Your task to perform on an android device: turn on location history Image 0: 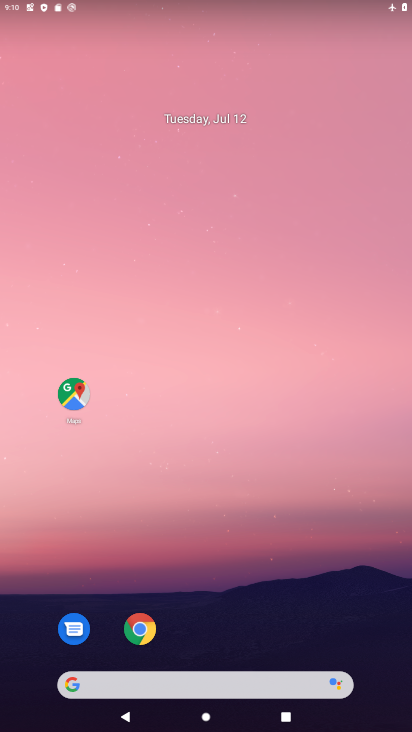
Step 0: drag from (227, 591) to (211, 173)
Your task to perform on an android device: turn on location history Image 1: 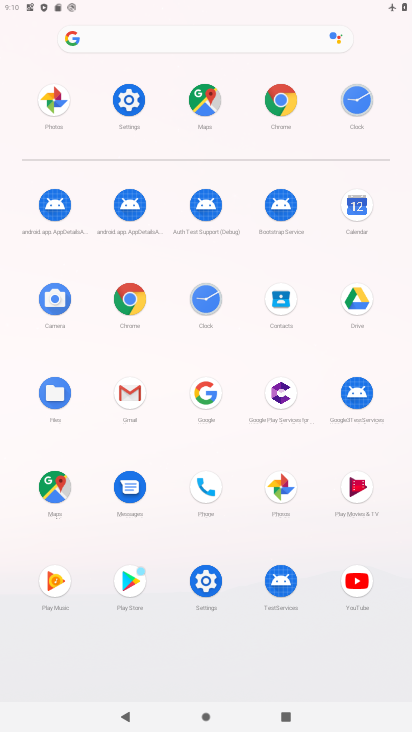
Step 1: click (135, 93)
Your task to perform on an android device: turn on location history Image 2: 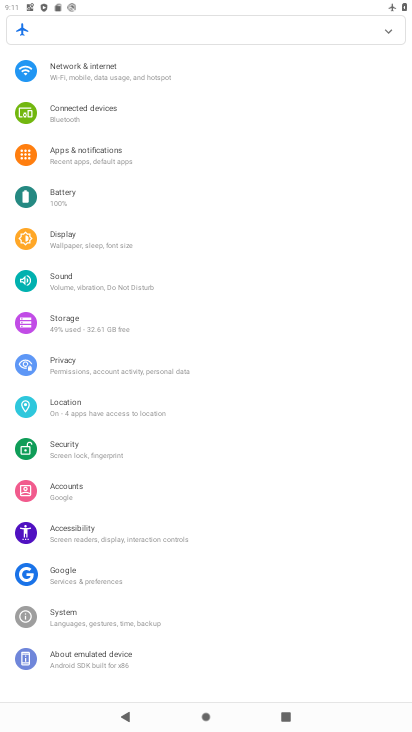
Step 2: click (95, 410)
Your task to perform on an android device: turn on location history Image 3: 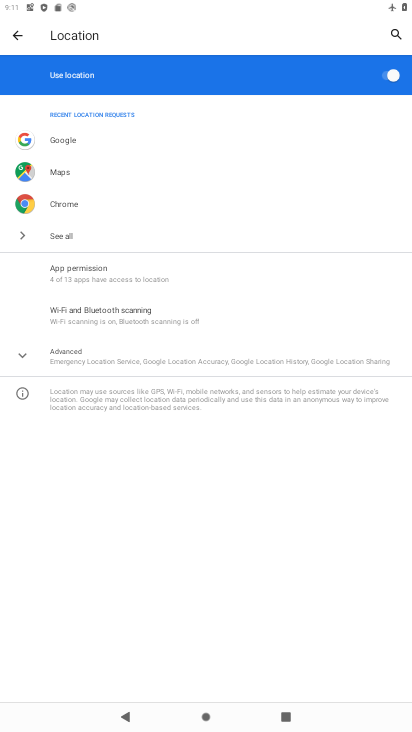
Step 3: click (114, 354)
Your task to perform on an android device: turn on location history Image 4: 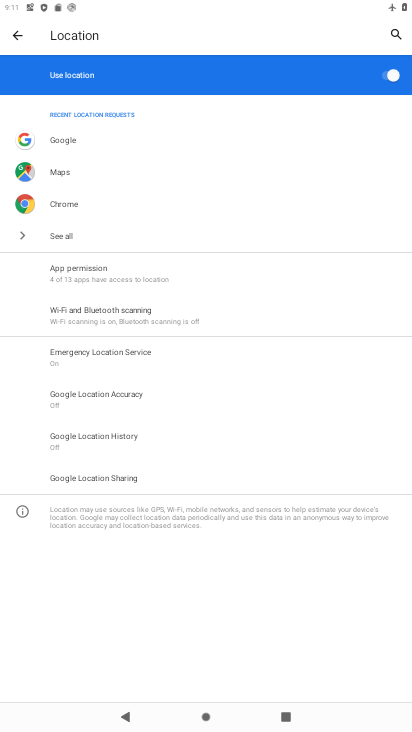
Step 4: click (119, 445)
Your task to perform on an android device: turn on location history Image 5: 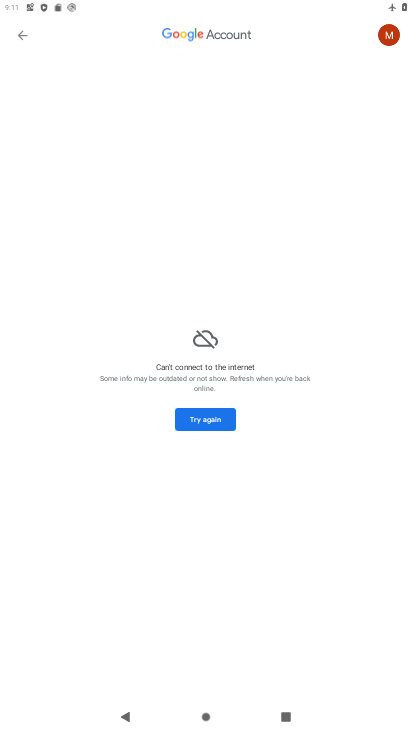
Step 5: click (225, 408)
Your task to perform on an android device: turn on location history Image 6: 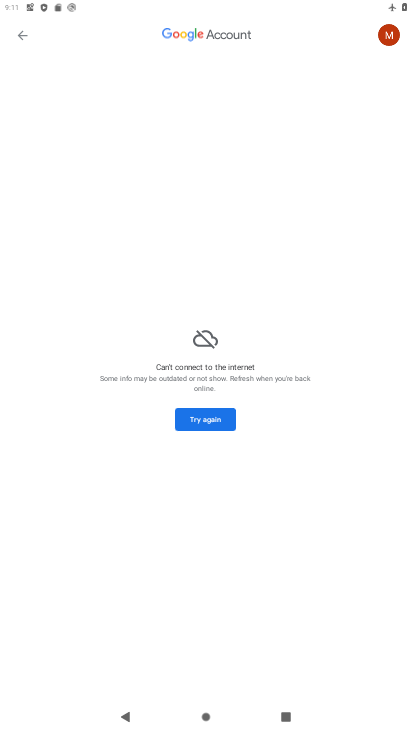
Step 6: task complete